Your task to perform on an android device: turn on location history Image 0: 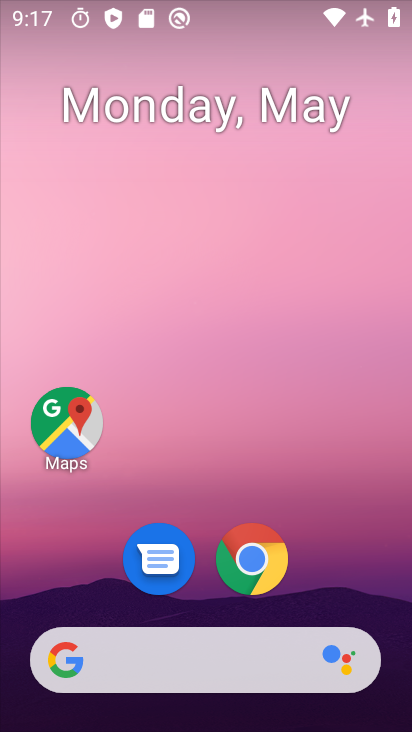
Step 0: drag from (321, 581) to (285, 152)
Your task to perform on an android device: turn on location history Image 1: 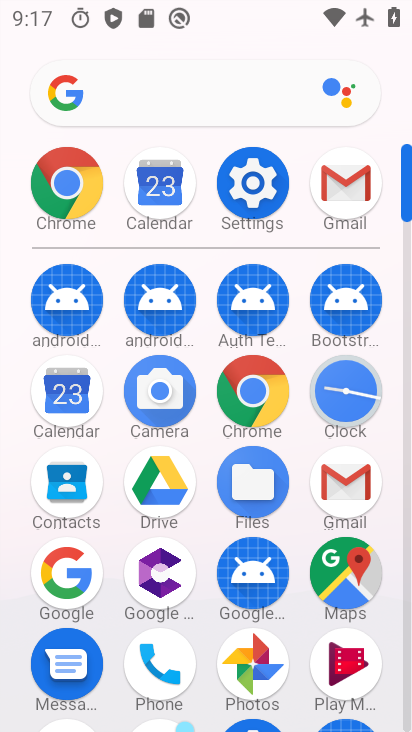
Step 1: click (267, 168)
Your task to perform on an android device: turn on location history Image 2: 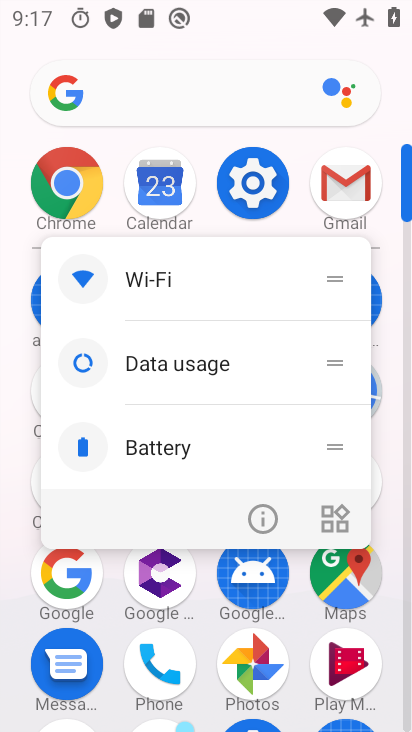
Step 2: click (305, 185)
Your task to perform on an android device: turn on location history Image 3: 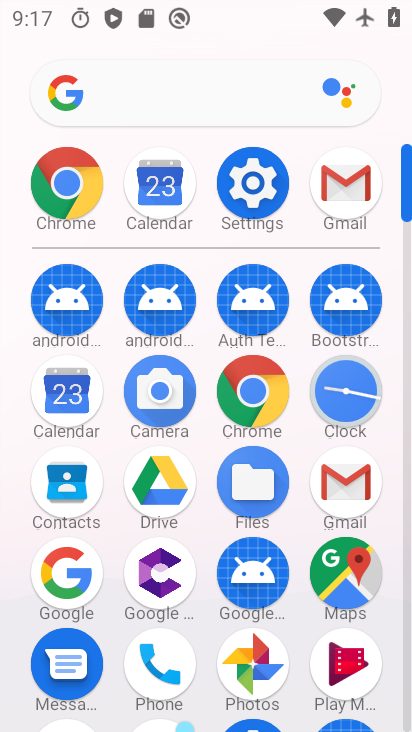
Step 3: click (289, 181)
Your task to perform on an android device: turn on location history Image 4: 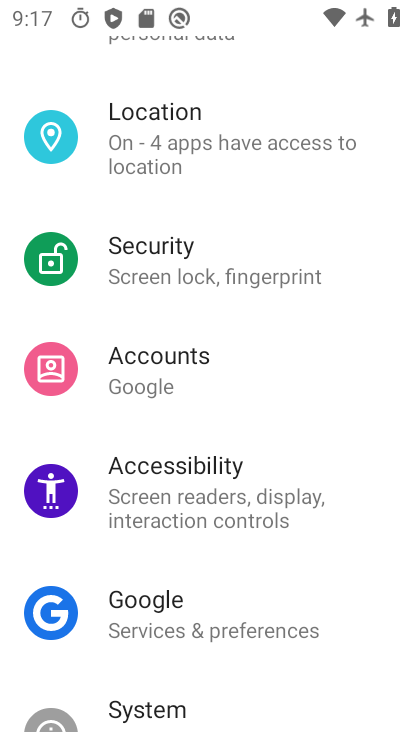
Step 4: click (178, 152)
Your task to perform on an android device: turn on location history Image 5: 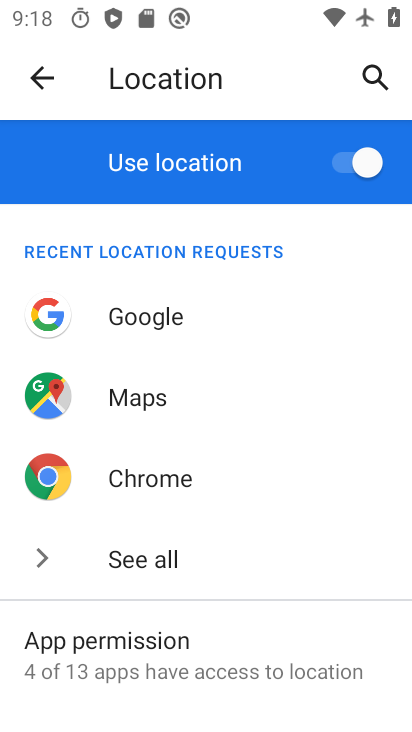
Step 5: drag from (248, 644) to (241, 294)
Your task to perform on an android device: turn on location history Image 6: 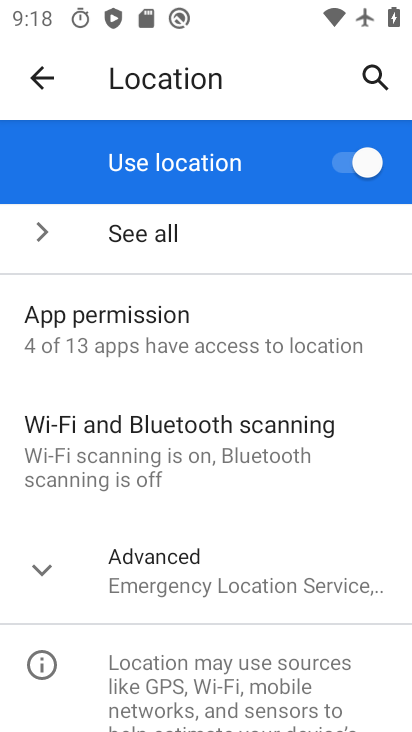
Step 6: click (241, 605)
Your task to perform on an android device: turn on location history Image 7: 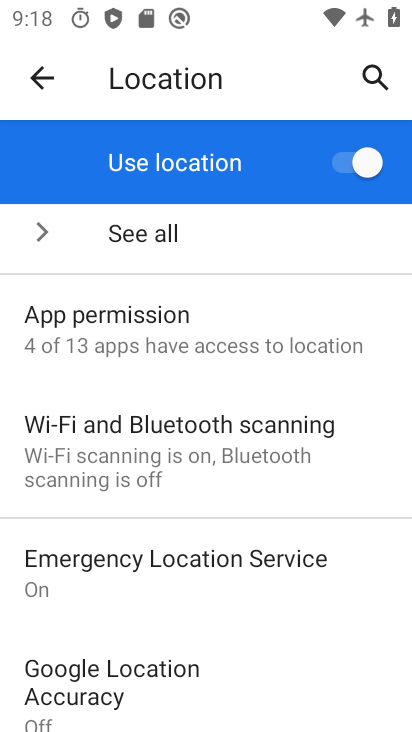
Step 7: drag from (174, 659) to (196, 230)
Your task to perform on an android device: turn on location history Image 8: 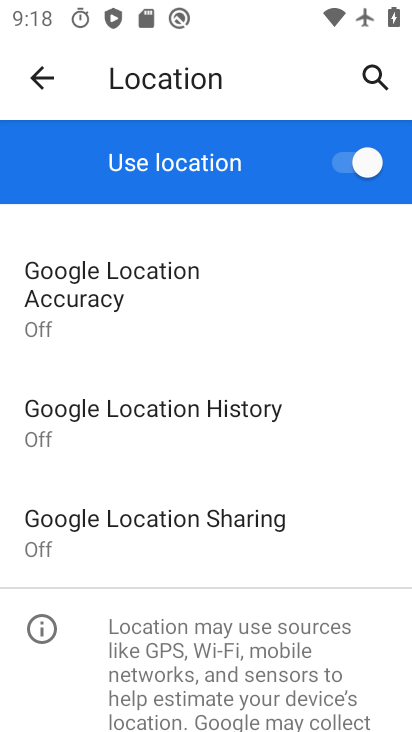
Step 8: click (227, 422)
Your task to perform on an android device: turn on location history Image 9: 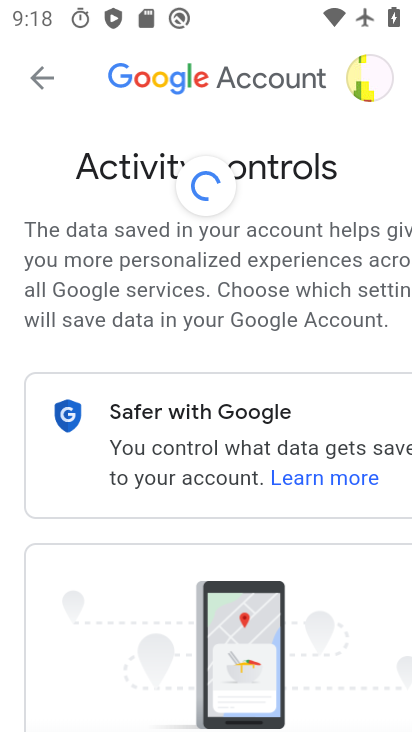
Step 9: task complete